Your task to perform on an android device: turn on data saver in the chrome app Image 0: 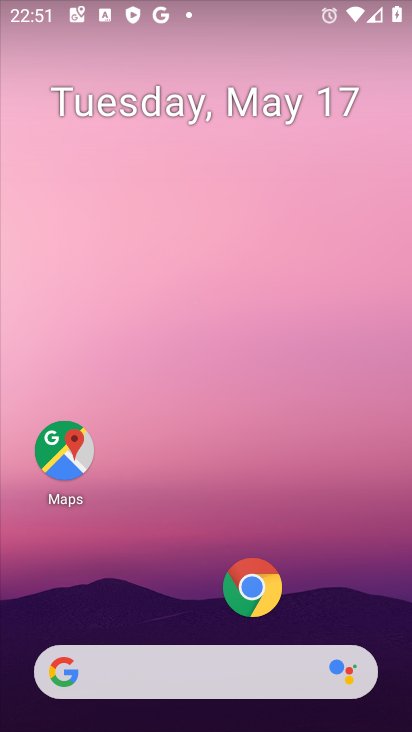
Step 0: drag from (178, 556) to (208, 117)
Your task to perform on an android device: turn on data saver in the chrome app Image 1: 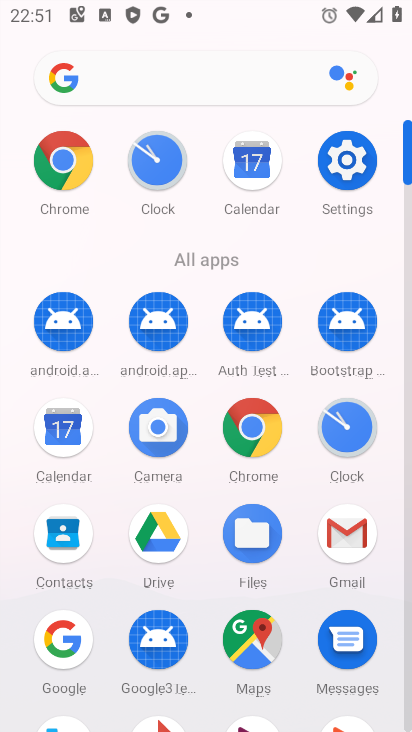
Step 1: click (259, 445)
Your task to perform on an android device: turn on data saver in the chrome app Image 2: 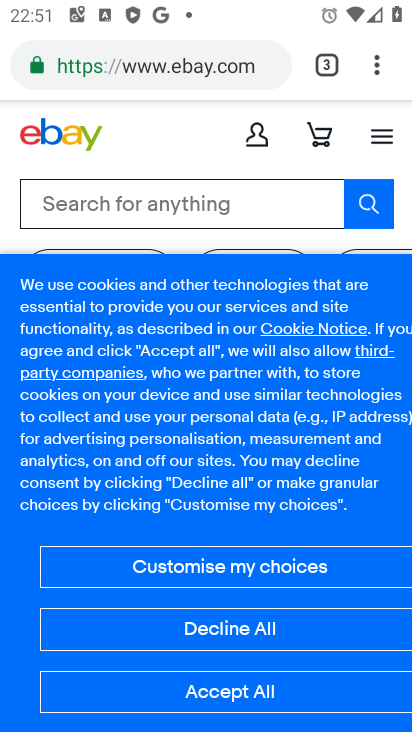
Step 2: click (373, 74)
Your task to perform on an android device: turn on data saver in the chrome app Image 3: 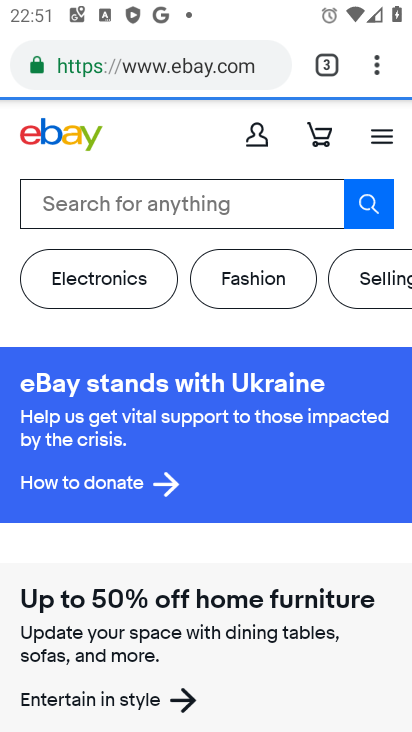
Step 3: click (381, 69)
Your task to perform on an android device: turn on data saver in the chrome app Image 4: 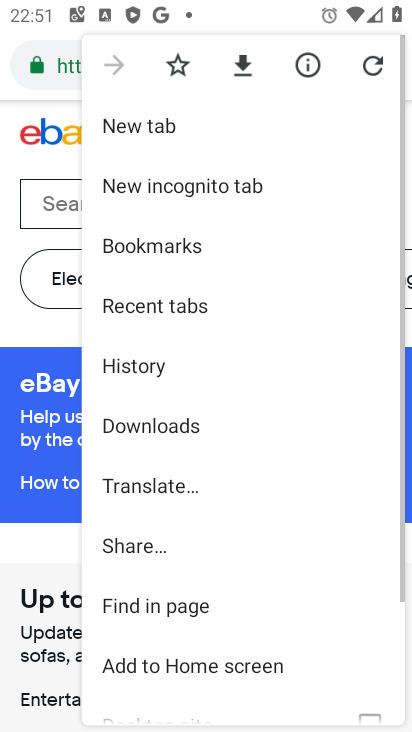
Step 4: drag from (184, 589) to (237, 270)
Your task to perform on an android device: turn on data saver in the chrome app Image 5: 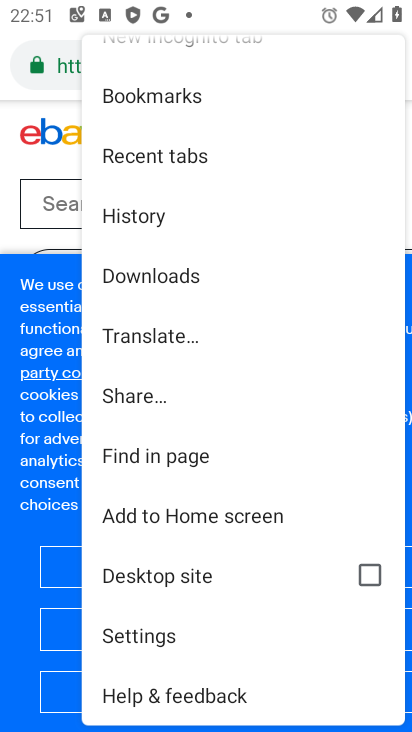
Step 5: click (195, 635)
Your task to perform on an android device: turn on data saver in the chrome app Image 6: 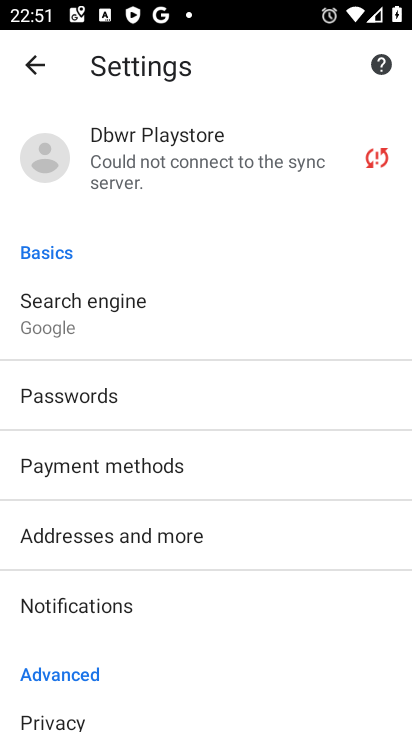
Step 6: drag from (180, 607) to (257, 36)
Your task to perform on an android device: turn on data saver in the chrome app Image 7: 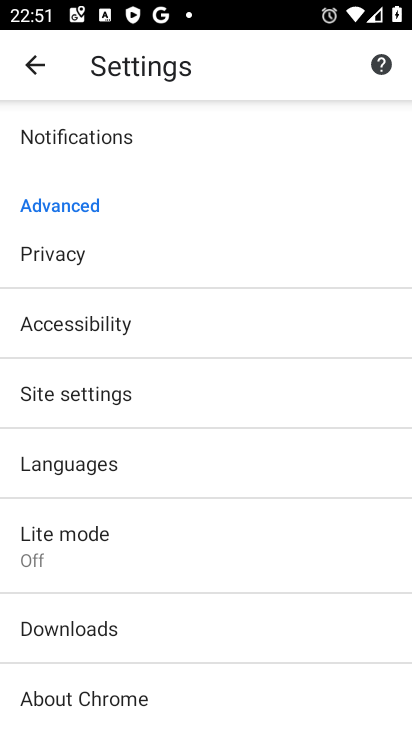
Step 7: click (148, 556)
Your task to perform on an android device: turn on data saver in the chrome app Image 8: 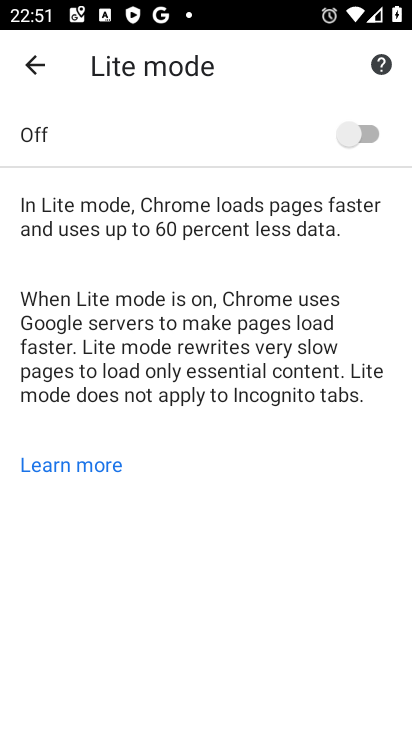
Step 8: click (351, 141)
Your task to perform on an android device: turn on data saver in the chrome app Image 9: 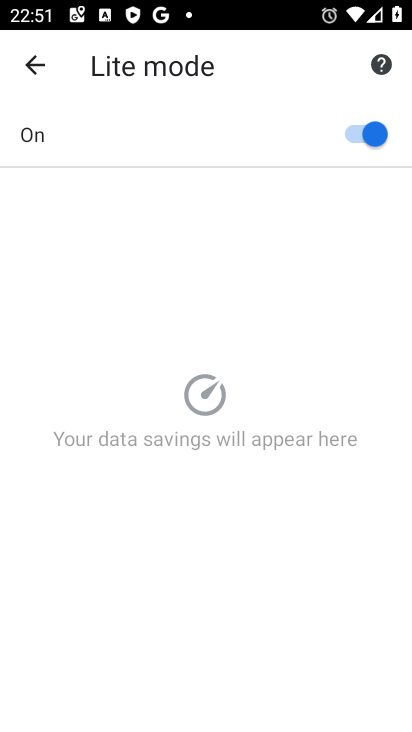
Step 9: task complete